Your task to perform on an android device: refresh tabs in the chrome app Image 0: 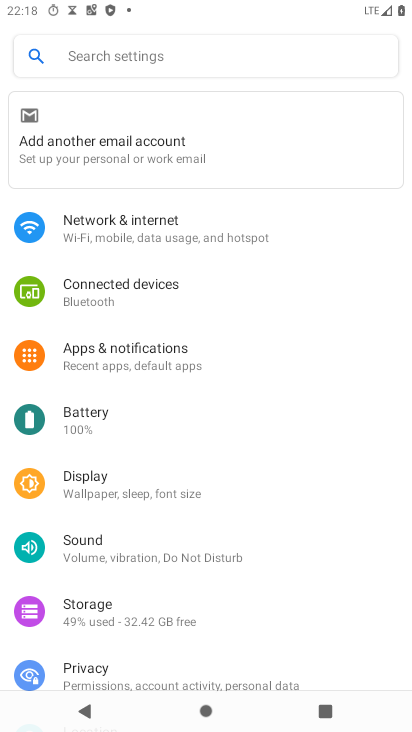
Step 0: press back button
Your task to perform on an android device: refresh tabs in the chrome app Image 1: 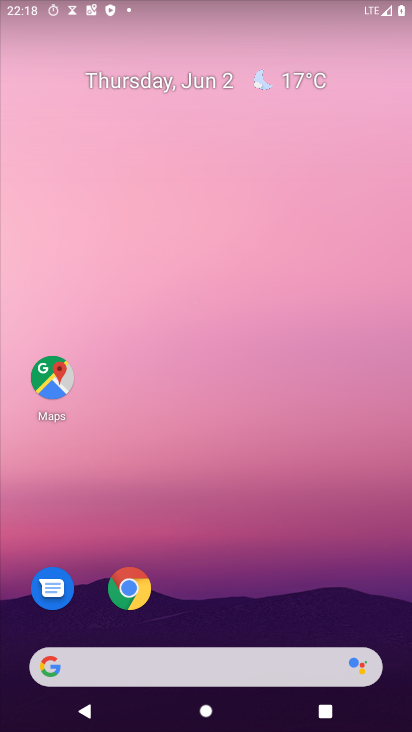
Step 1: click (126, 584)
Your task to perform on an android device: refresh tabs in the chrome app Image 2: 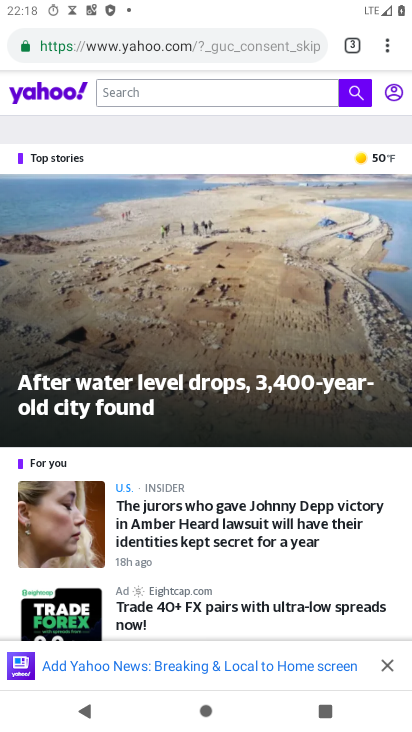
Step 2: click (385, 42)
Your task to perform on an android device: refresh tabs in the chrome app Image 3: 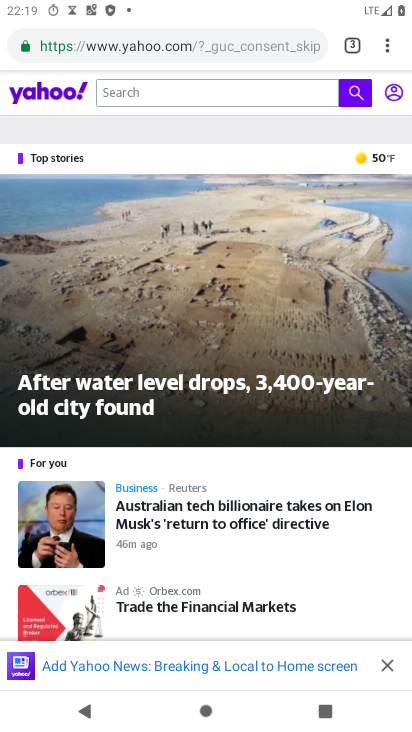
Step 3: task complete